Your task to perform on an android device: read, delete, or share a saved page in the chrome app Image 0: 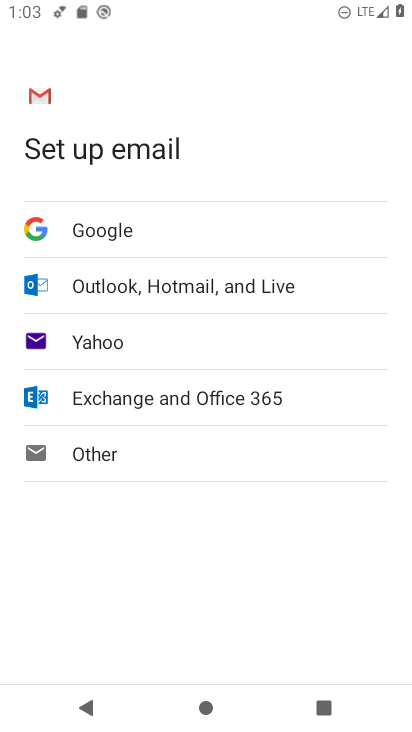
Step 0: press home button
Your task to perform on an android device: read, delete, or share a saved page in the chrome app Image 1: 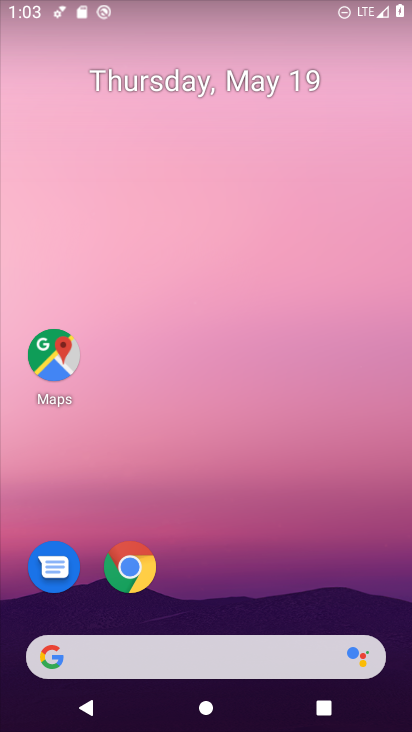
Step 1: click (130, 569)
Your task to perform on an android device: read, delete, or share a saved page in the chrome app Image 2: 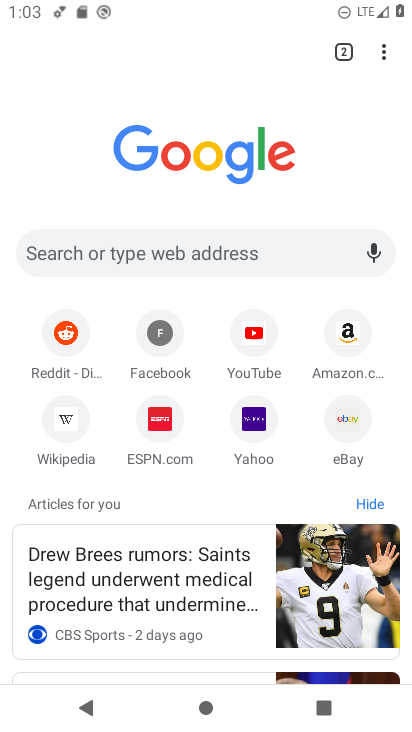
Step 2: click (385, 55)
Your task to perform on an android device: read, delete, or share a saved page in the chrome app Image 3: 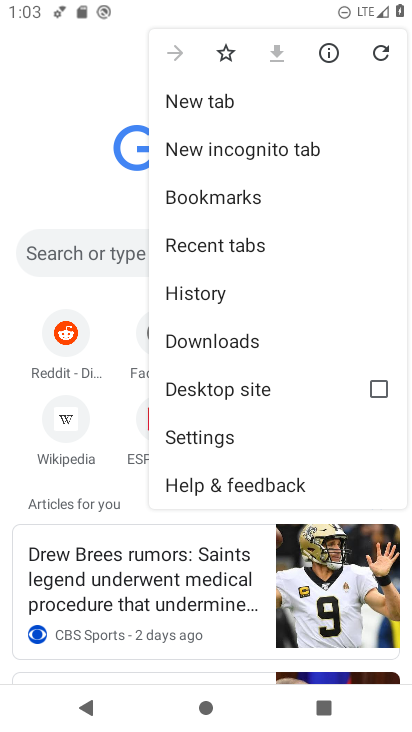
Step 3: click (246, 334)
Your task to perform on an android device: read, delete, or share a saved page in the chrome app Image 4: 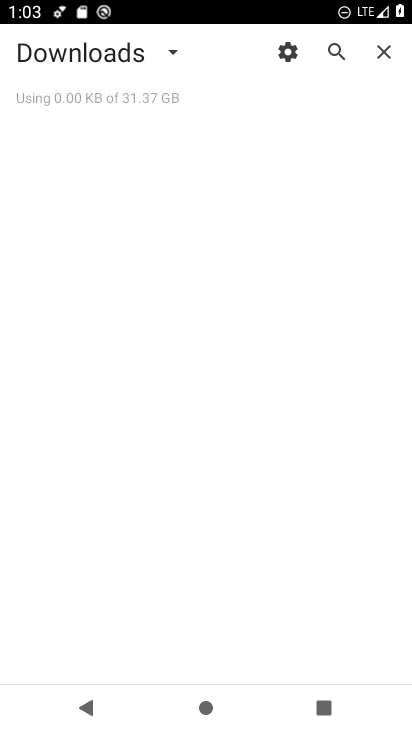
Step 4: task complete